Your task to perform on an android device: Open the stopwatch Image 0: 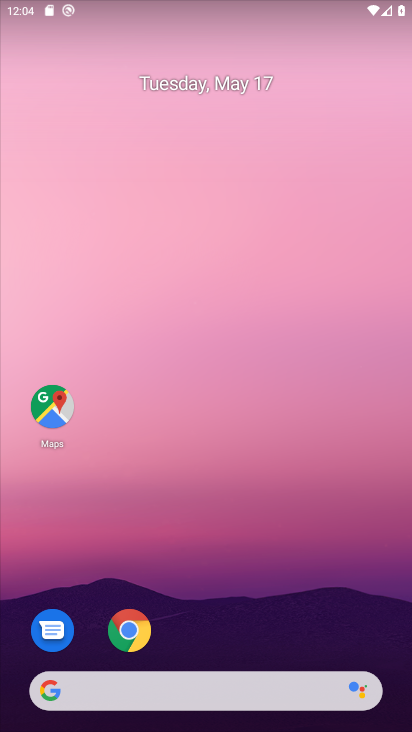
Step 0: drag from (218, 644) to (323, 234)
Your task to perform on an android device: Open the stopwatch Image 1: 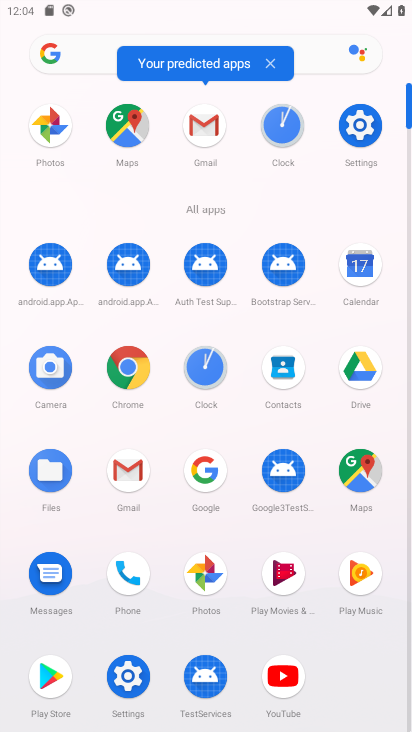
Step 1: click (222, 376)
Your task to perform on an android device: Open the stopwatch Image 2: 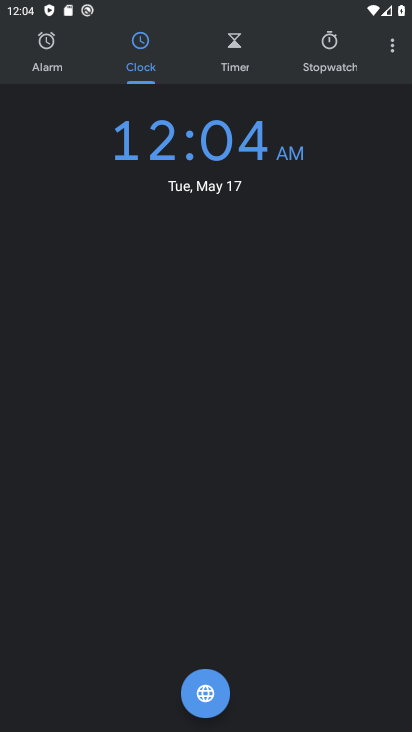
Step 2: click (342, 54)
Your task to perform on an android device: Open the stopwatch Image 3: 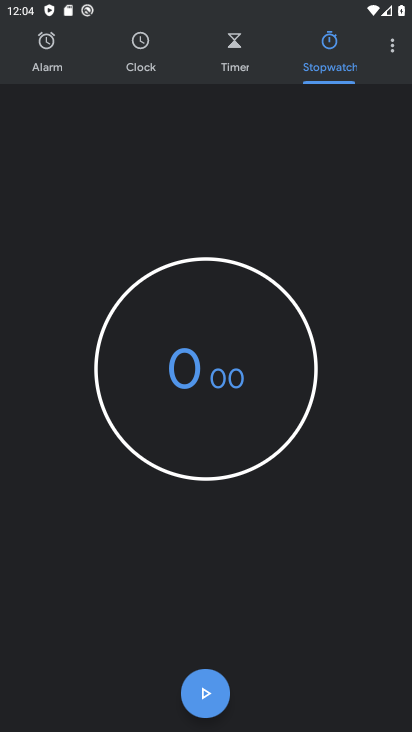
Step 3: task complete